Your task to perform on an android device: empty trash in google photos Image 0: 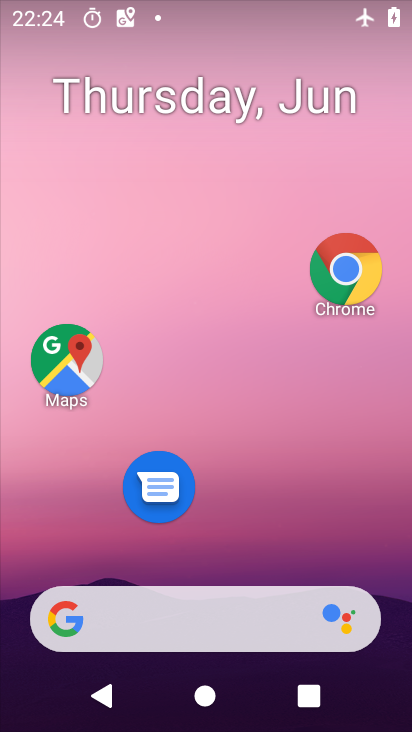
Step 0: drag from (222, 553) to (199, 113)
Your task to perform on an android device: empty trash in google photos Image 1: 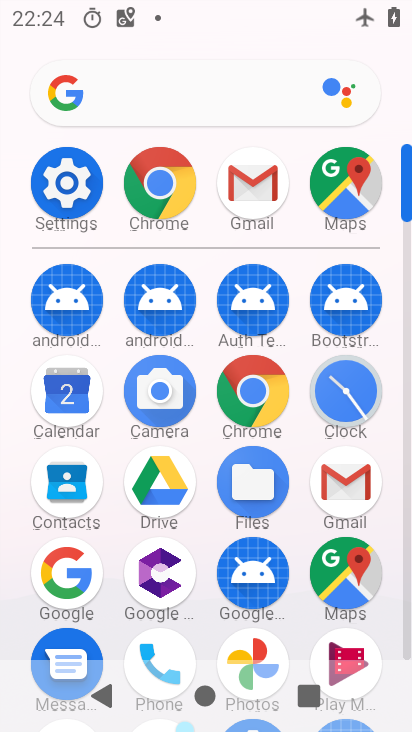
Step 1: click (257, 654)
Your task to perform on an android device: empty trash in google photos Image 2: 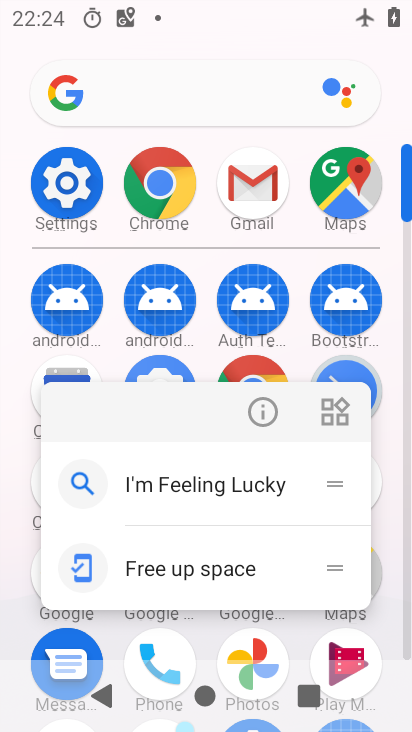
Step 2: click (267, 401)
Your task to perform on an android device: empty trash in google photos Image 3: 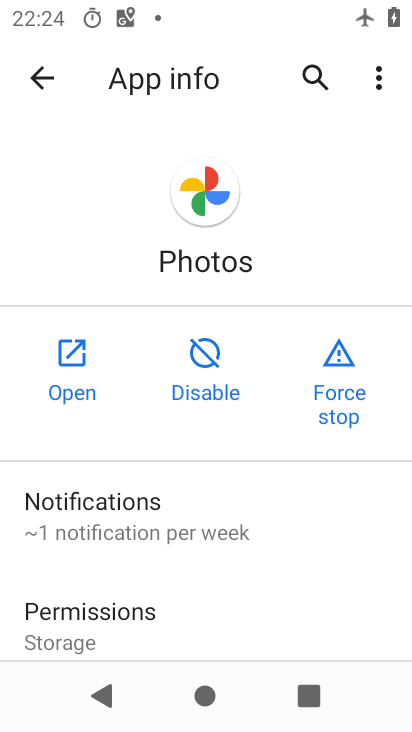
Step 3: click (89, 367)
Your task to perform on an android device: empty trash in google photos Image 4: 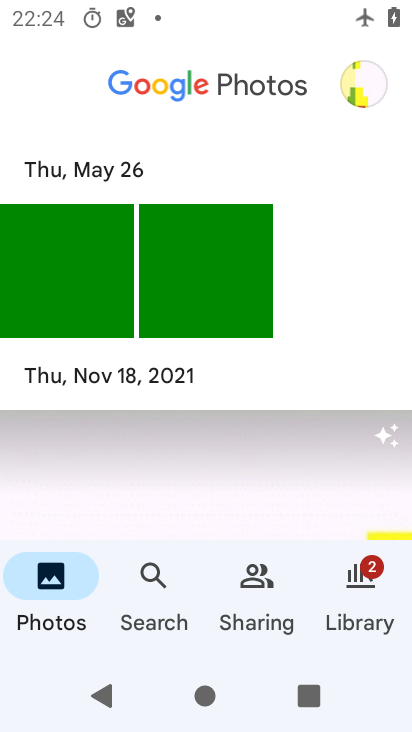
Step 4: drag from (231, 500) to (282, 212)
Your task to perform on an android device: empty trash in google photos Image 5: 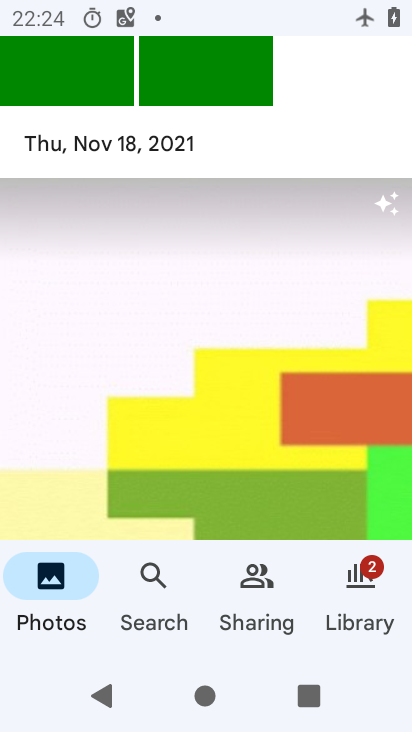
Step 5: click (352, 603)
Your task to perform on an android device: empty trash in google photos Image 6: 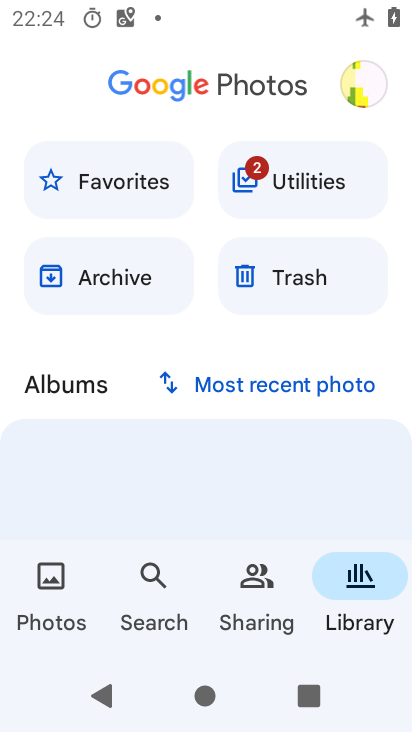
Step 6: click (338, 279)
Your task to perform on an android device: empty trash in google photos Image 7: 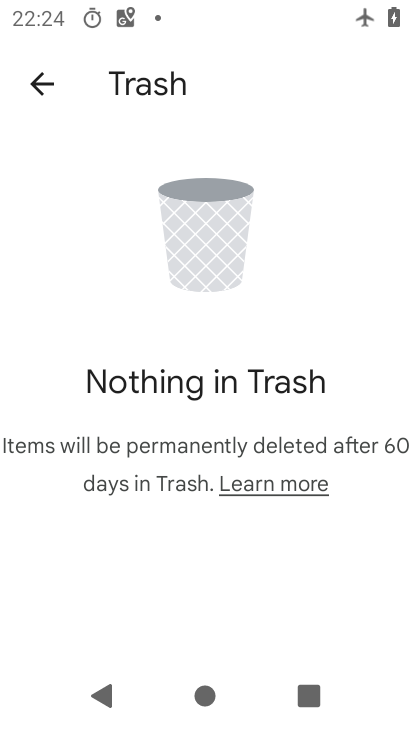
Step 7: task complete